Your task to perform on an android device: Open Youtube and go to the subscriptions tab Image 0: 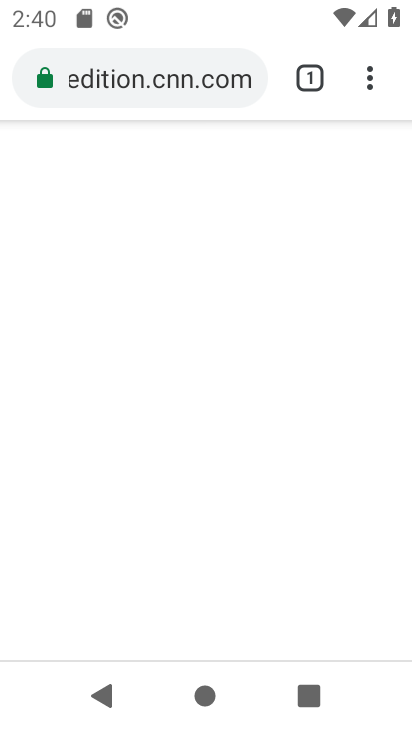
Step 0: press home button
Your task to perform on an android device: Open Youtube and go to the subscriptions tab Image 1: 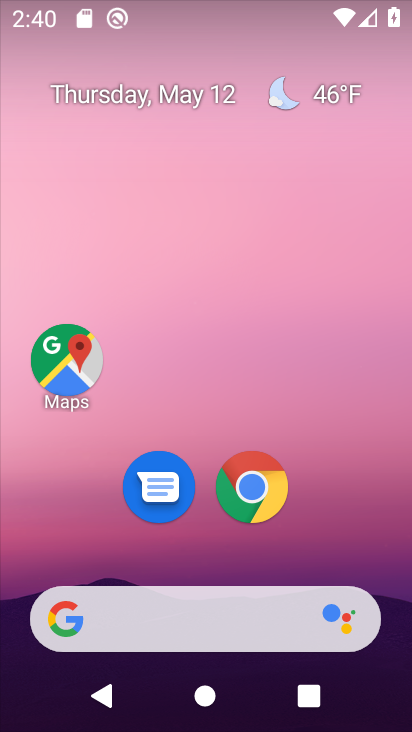
Step 1: drag from (361, 562) to (199, 4)
Your task to perform on an android device: Open Youtube and go to the subscriptions tab Image 2: 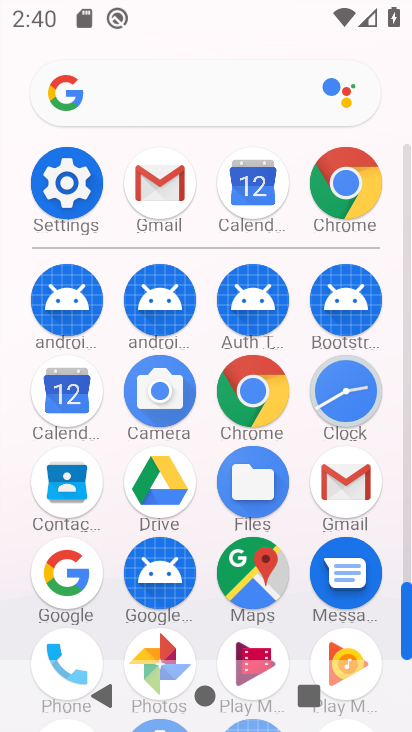
Step 2: drag from (199, 624) to (135, 320)
Your task to perform on an android device: Open Youtube and go to the subscriptions tab Image 3: 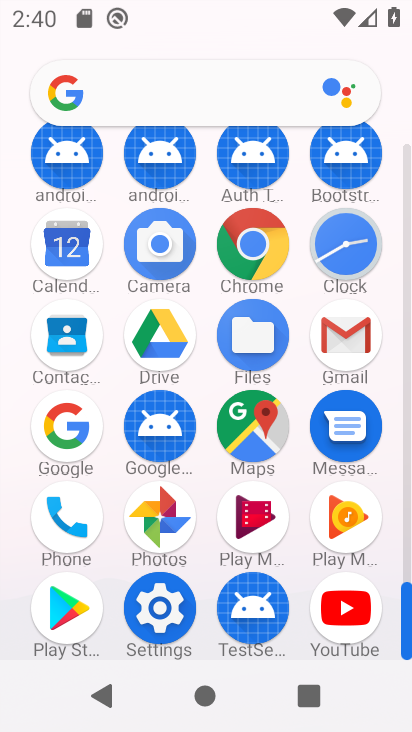
Step 3: click (342, 625)
Your task to perform on an android device: Open Youtube and go to the subscriptions tab Image 4: 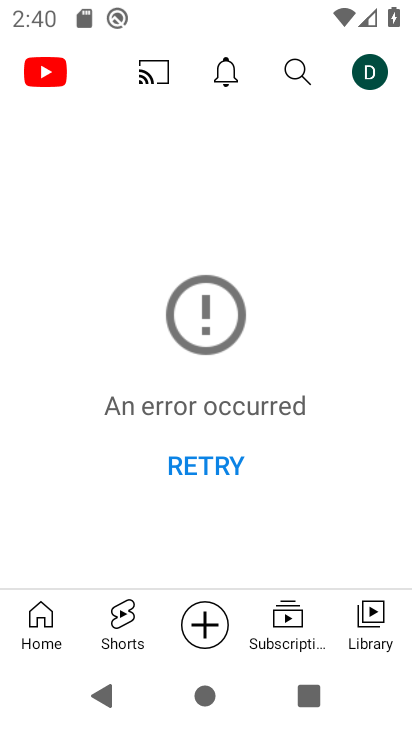
Step 4: click (297, 625)
Your task to perform on an android device: Open Youtube and go to the subscriptions tab Image 5: 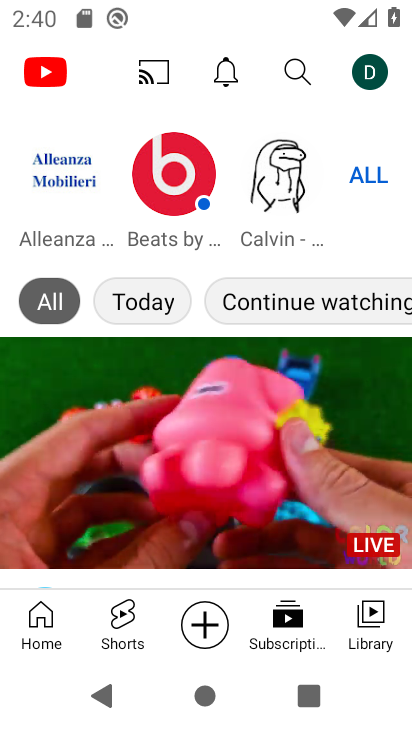
Step 5: task complete